Your task to perform on an android device: Go to Google maps Image 0: 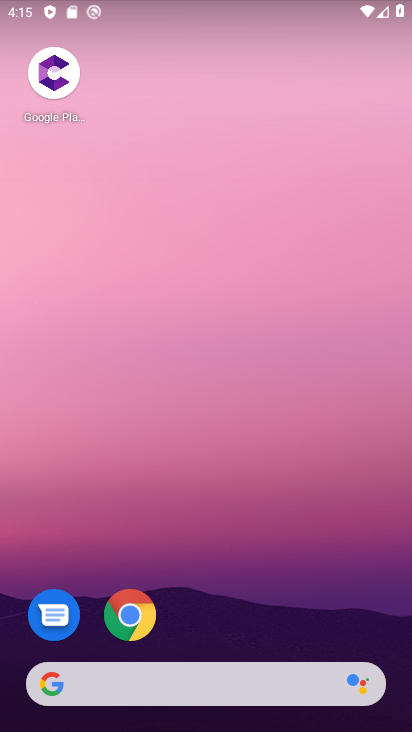
Step 0: drag from (357, 610) to (262, 90)
Your task to perform on an android device: Go to Google maps Image 1: 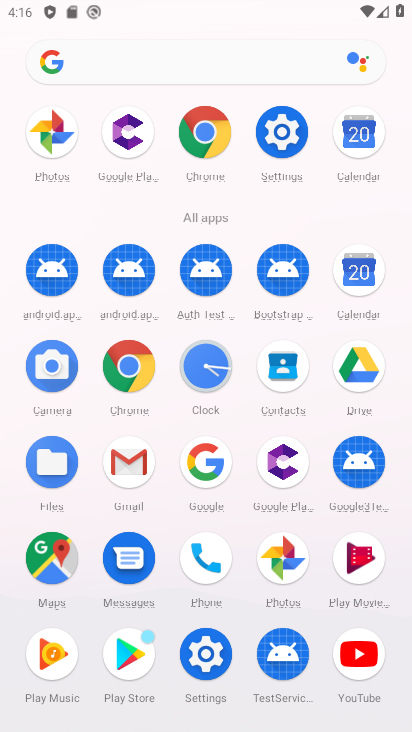
Step 1: click (61, 573)
Your task to perform on an android device: Go to Google maps Image 2: 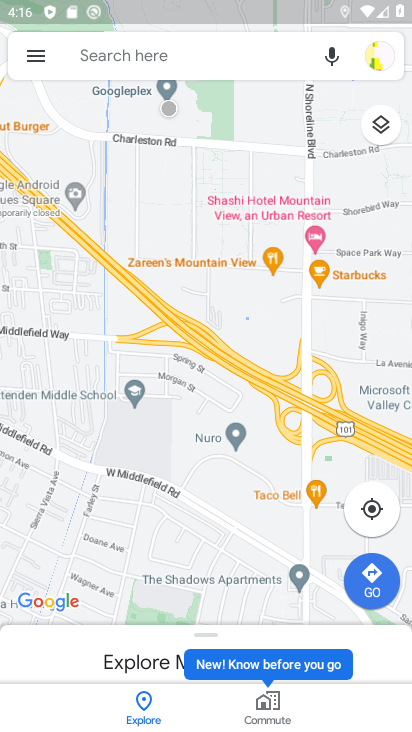
Step 2: task complete